Your task to perform on an android device: turn off notifications in google photos Image 0: 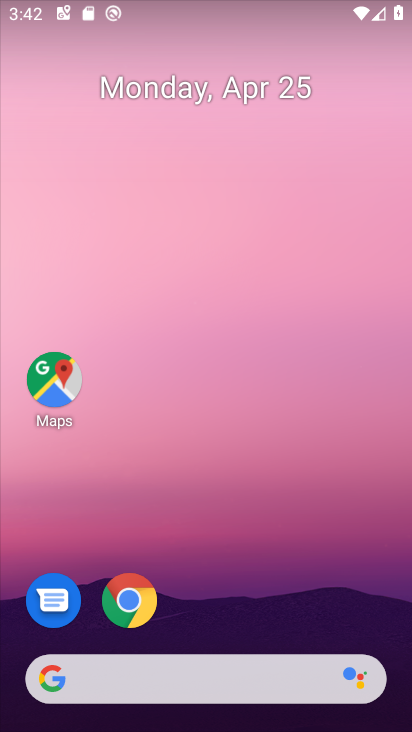
Step 0: drag from (249, 563) to (291, 235)
Your task to perform on an android device: turn off notifications in google photos Image 1: 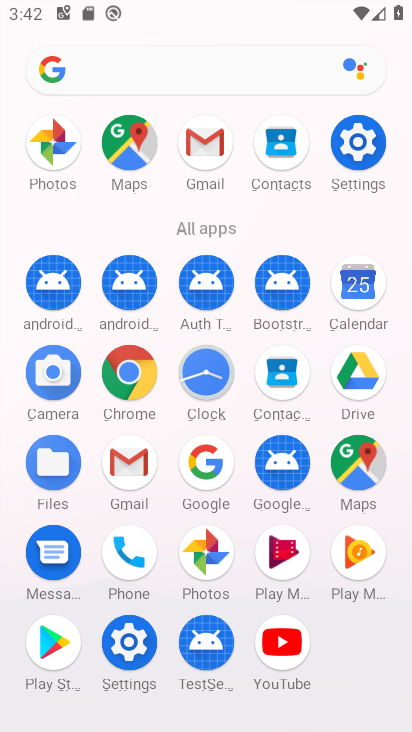
Step 1: click (205, 566)
Your task to perform on an android device: turn off notifications in google photos Image 2: 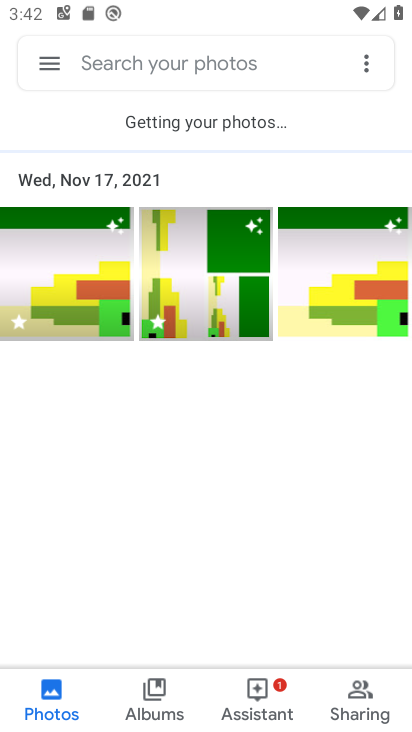
Step 2: click (51, 62)
Your task to perform on an android device: turn off notifications in google photos Image 3: 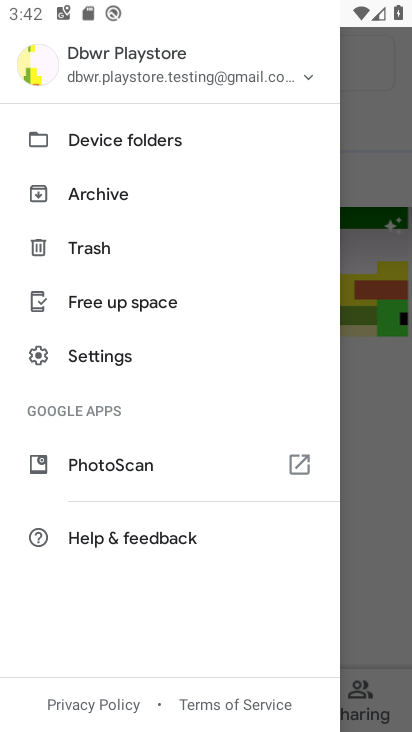
Step 3: click (93, 353)
Your task to perform on an android device: turn off notifications in google photos Image 4: 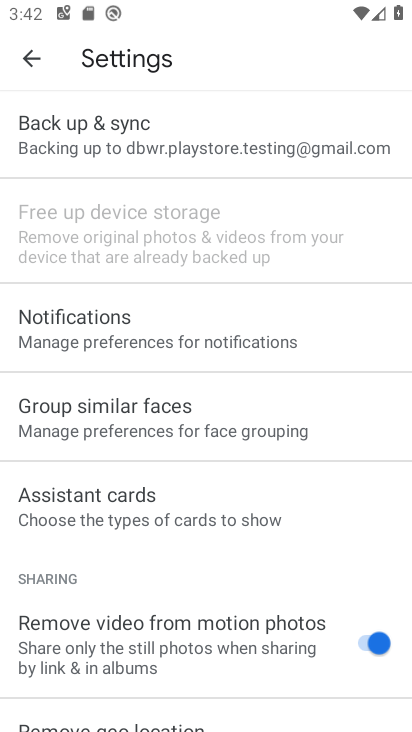
Step 4: click (152, 331)
Your task to perform on an android device: turn off notifications in google photos Image 5: 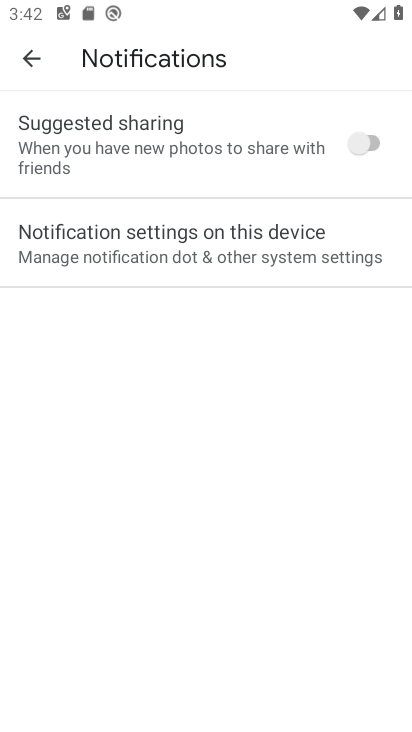
Step 5: click (299, 213)
Your task to perform on an android device: turn off notifications in google photos Image 6: 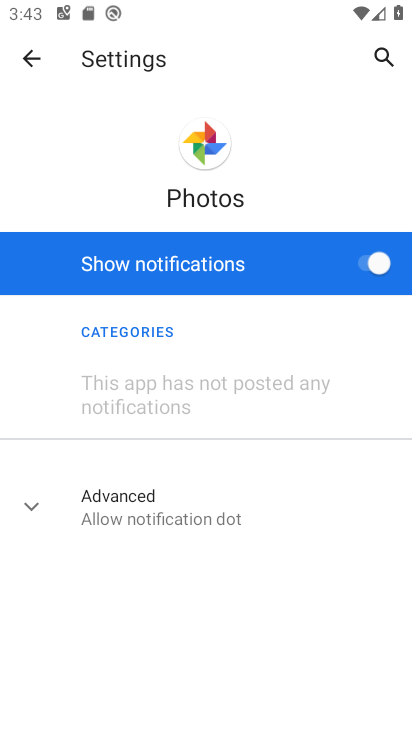
Step 6: click (380, 266)
Your task to perform on an android device: turn off notifications in google photos Image 7: 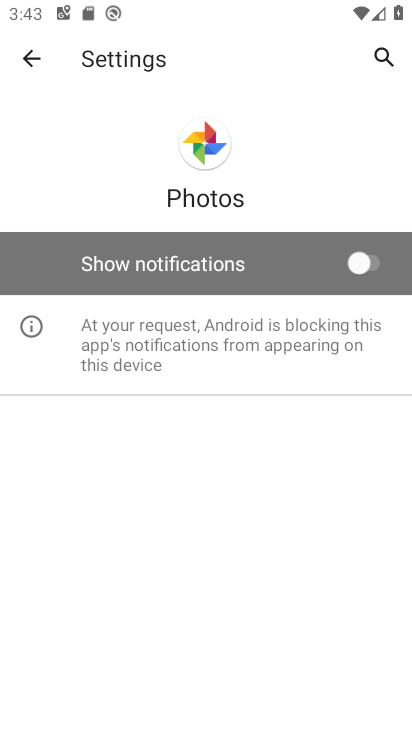
Step 7: task complete